Your task to perform on an android device: change timer sound Image 0: 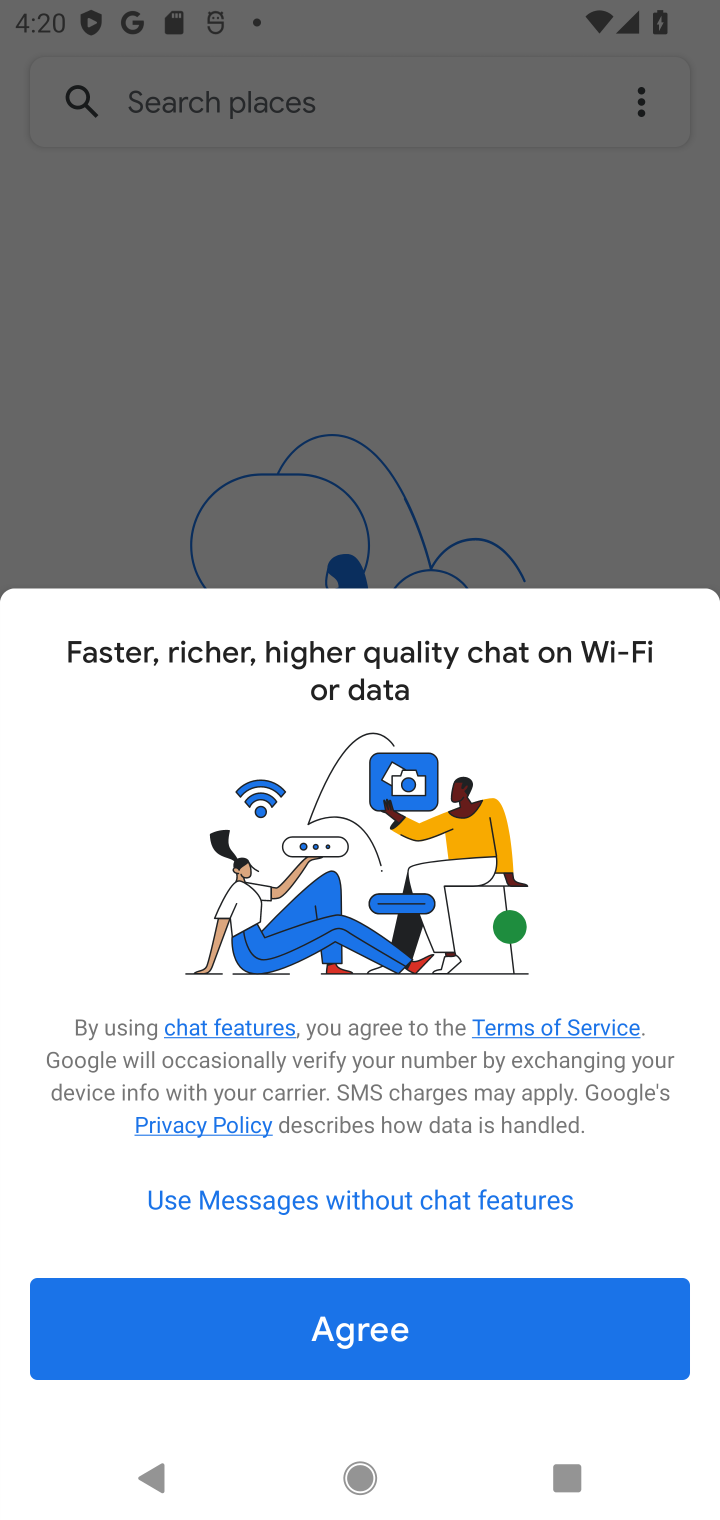
Step 0: press home button
Your task to perform on an android device: change timer sound Image 1: 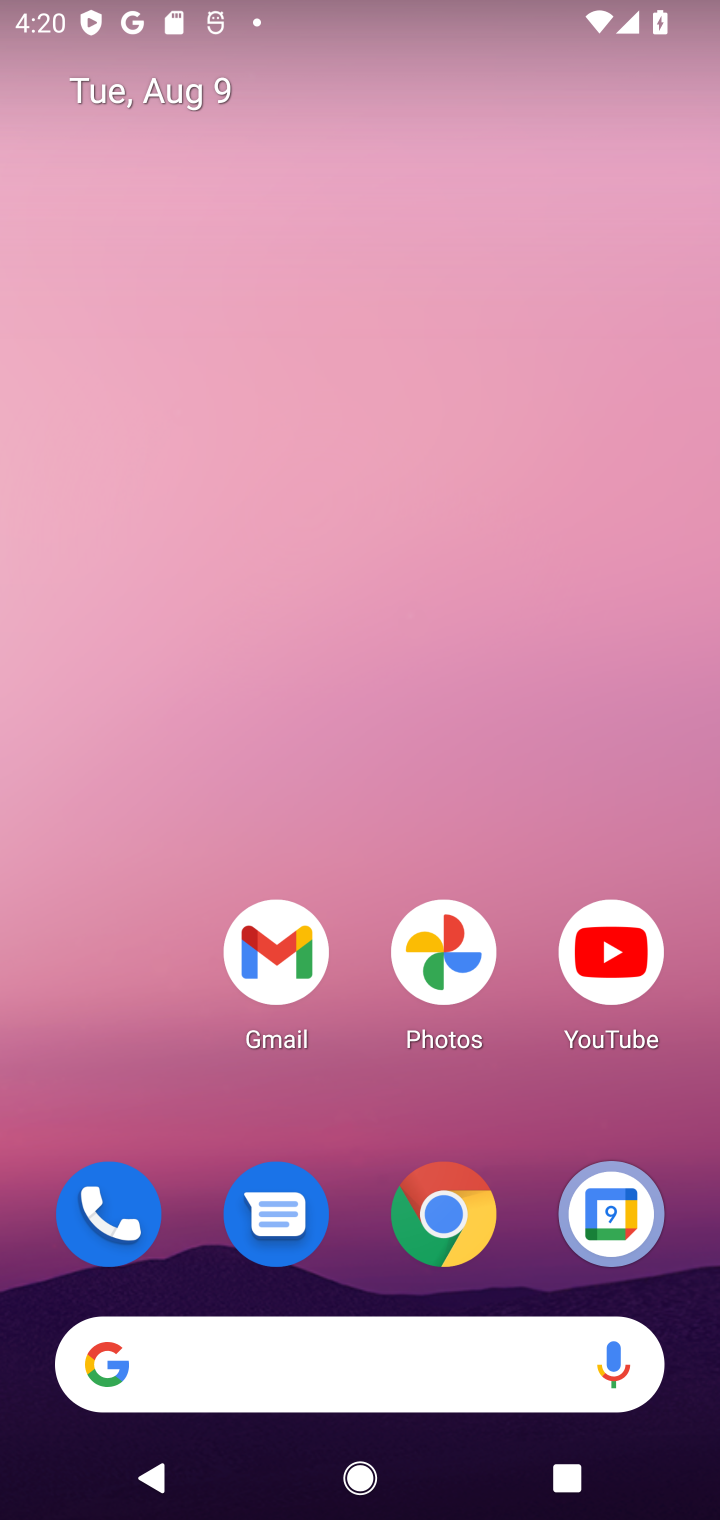
Step 1: click (265, 341)
Your task to perform on an android device: change timer sound Image 2: 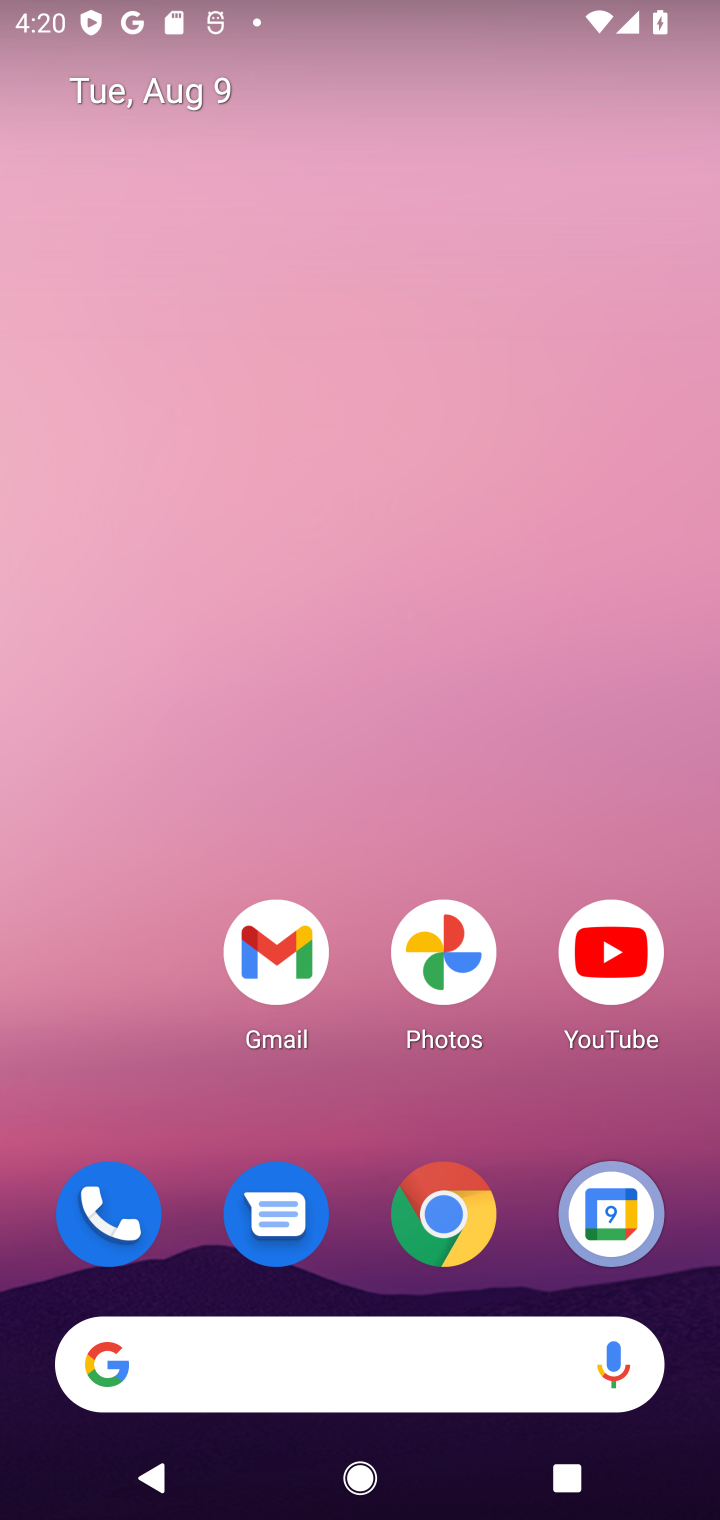
Step 2: drag from (412, 1272) to (17, 249)
Your task to perform on an android device: change timer sound Image 3: 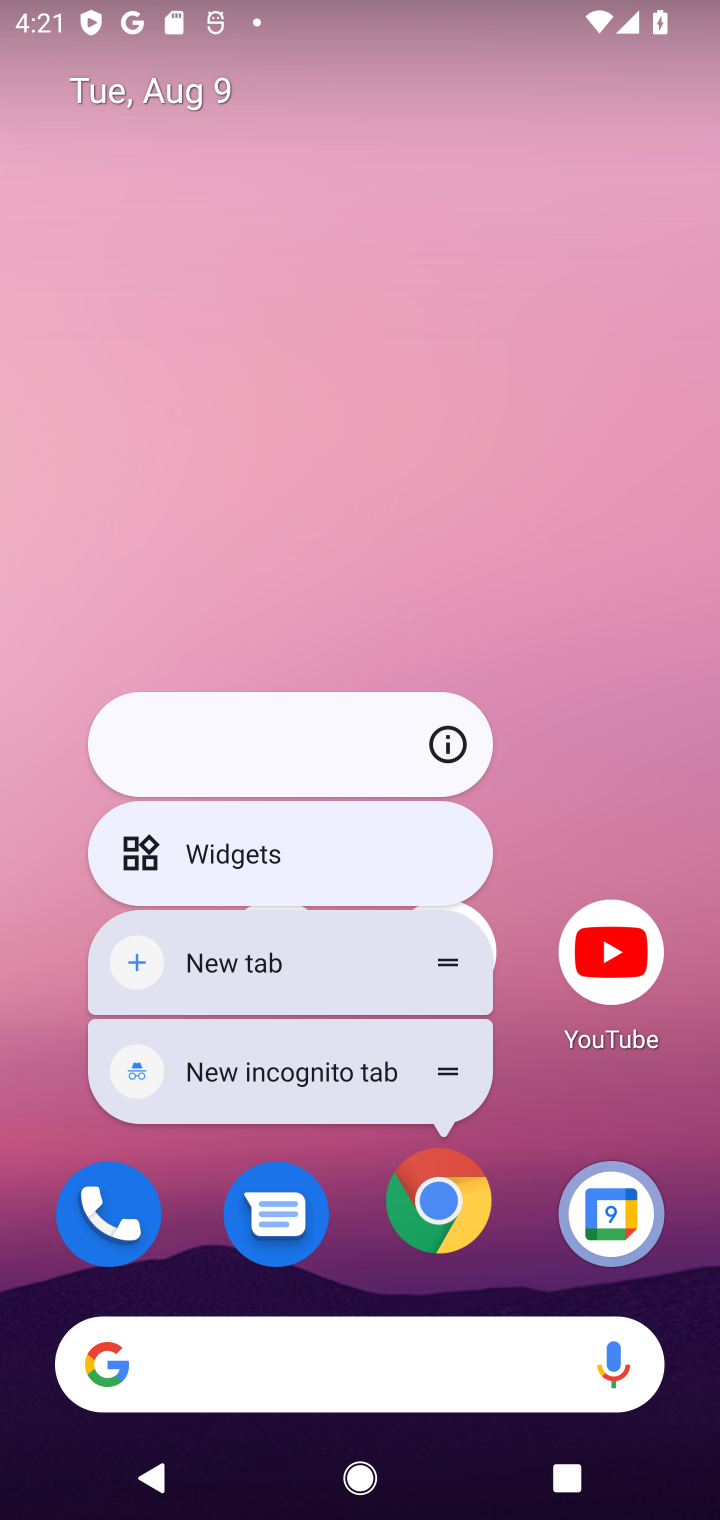
Step 3: click (441, 513)
Your task to perform on an android device: change timer sound Image 4: 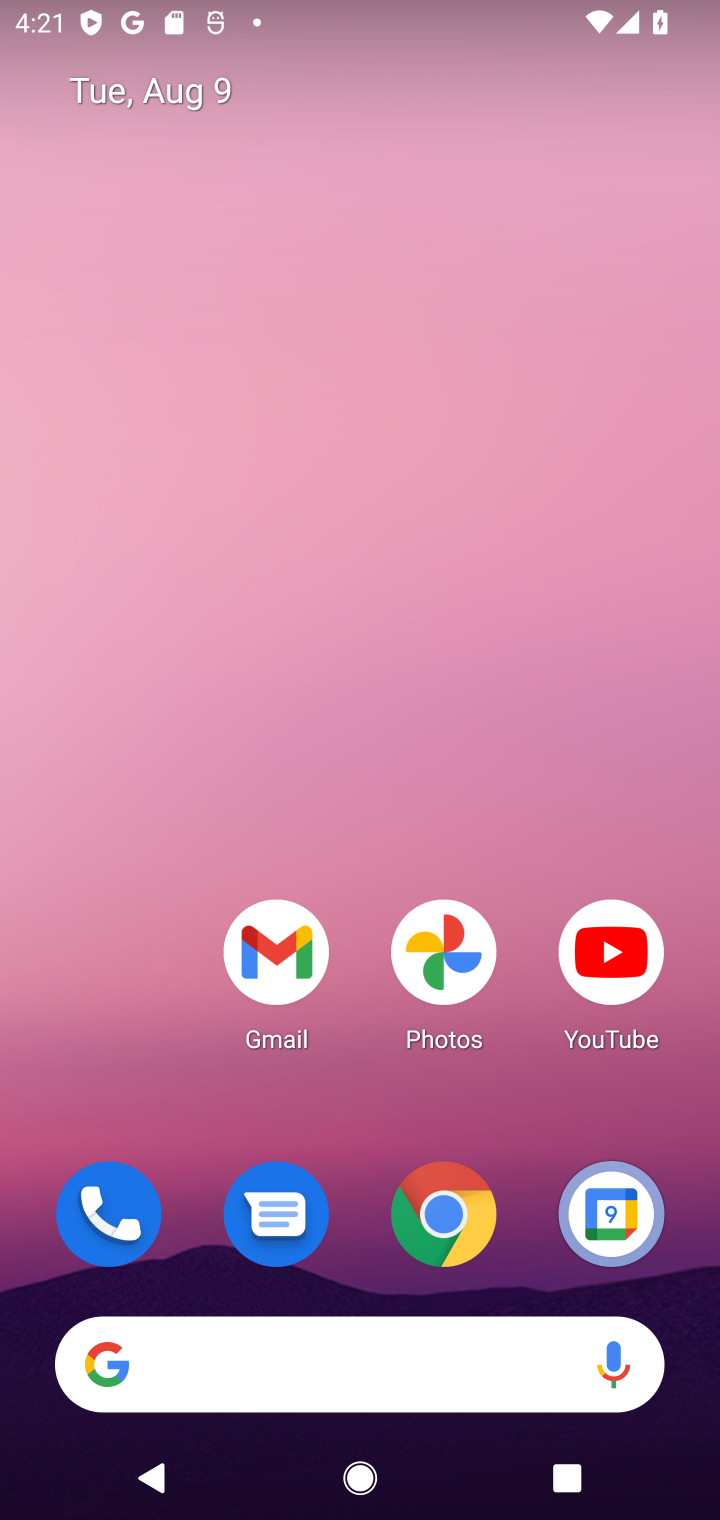
Step 4: drag from (484, 1329) to (330, 340)
Your task to perform on an android device: change timer sound Image 5: 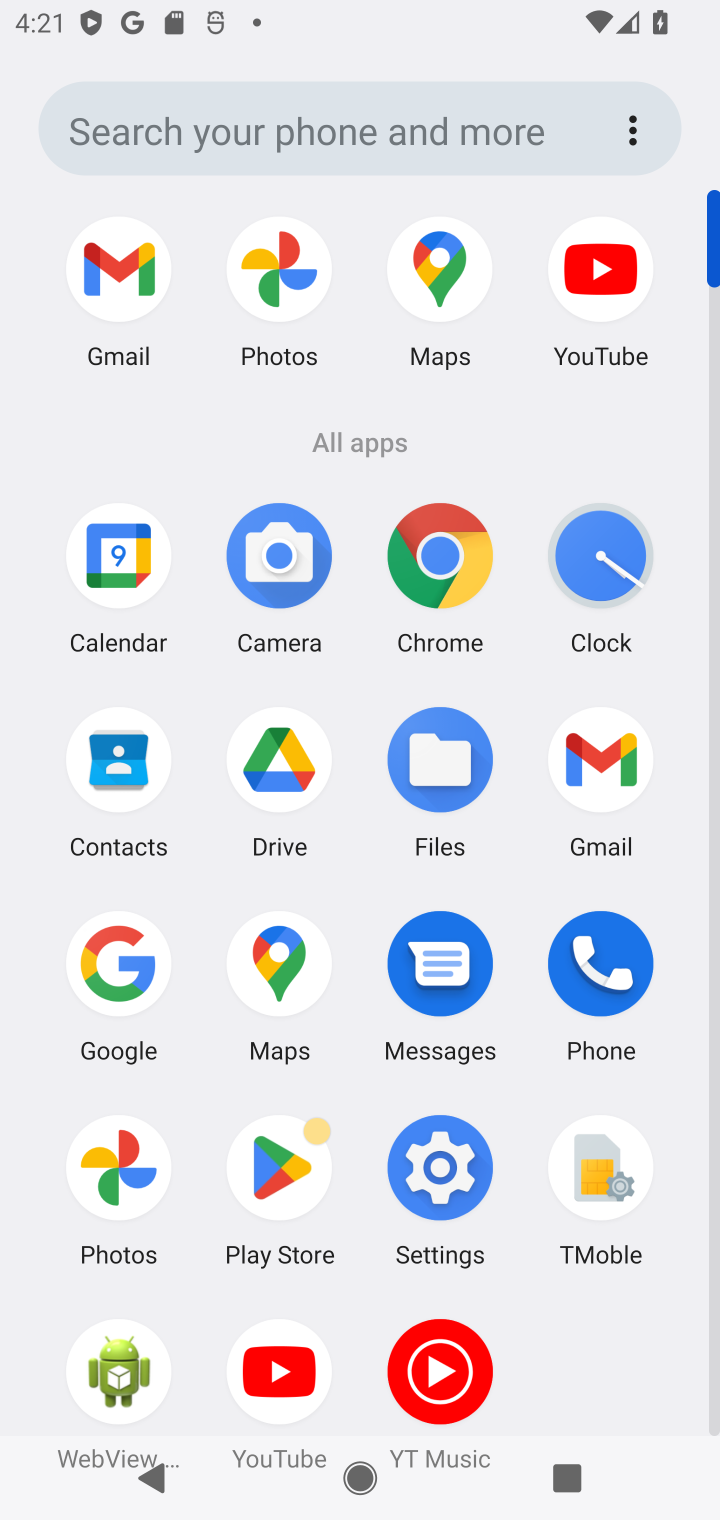
Step 5: click (589, 559)
Your task to perform on an android device: change timer sound Image 6: 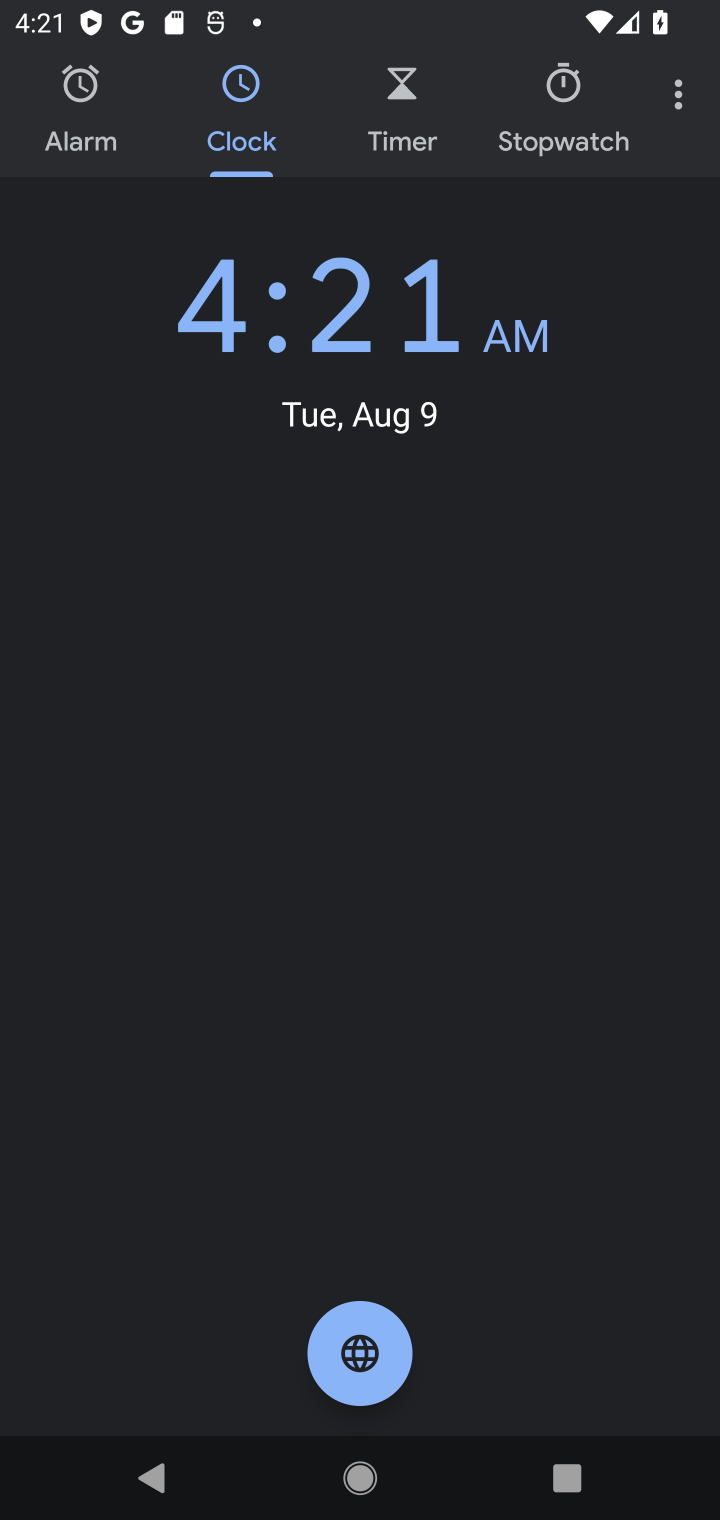
Step 6: click (674, 110)
Your task to perform on an android device: change timer sound Image 7: 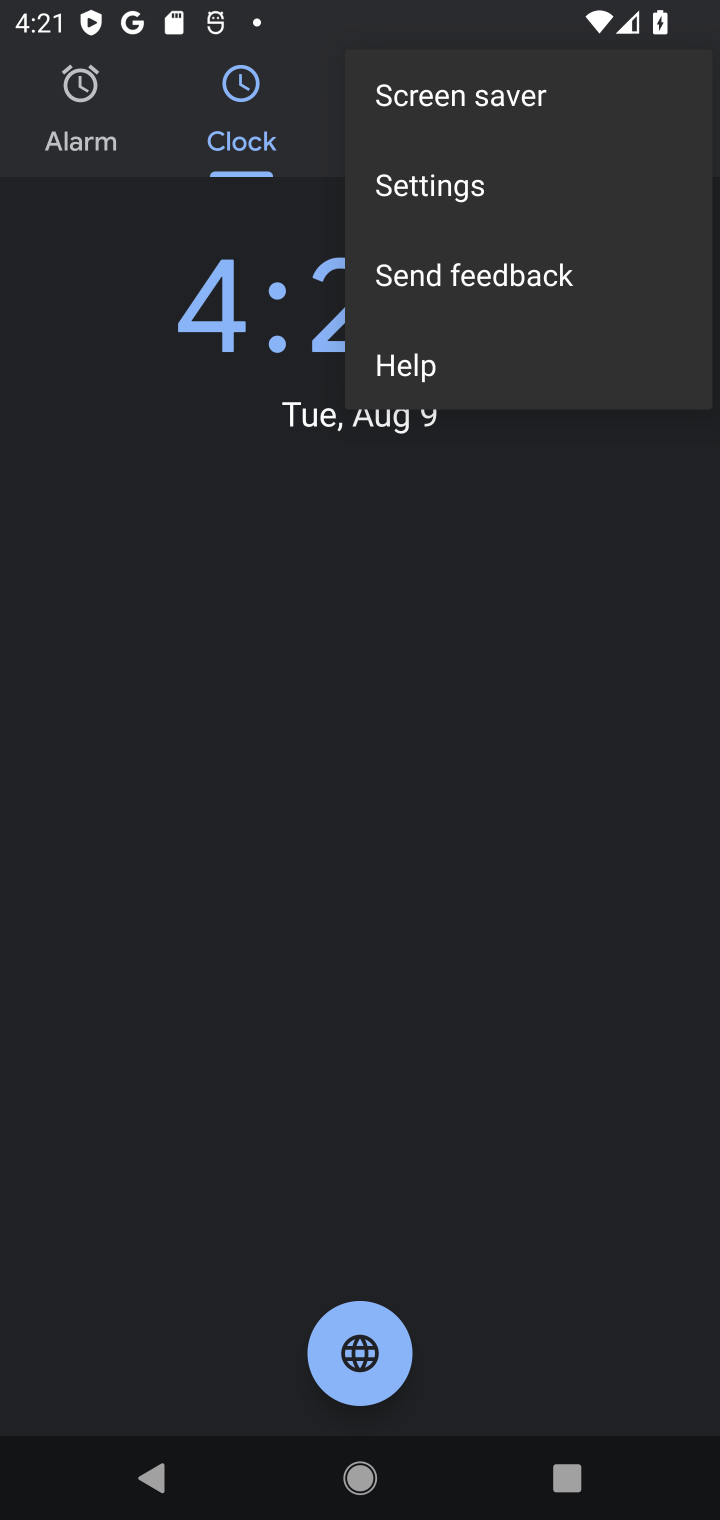
Step 7: click (448, 204)
Your task to perform on an android device: change timer sound Image 8: 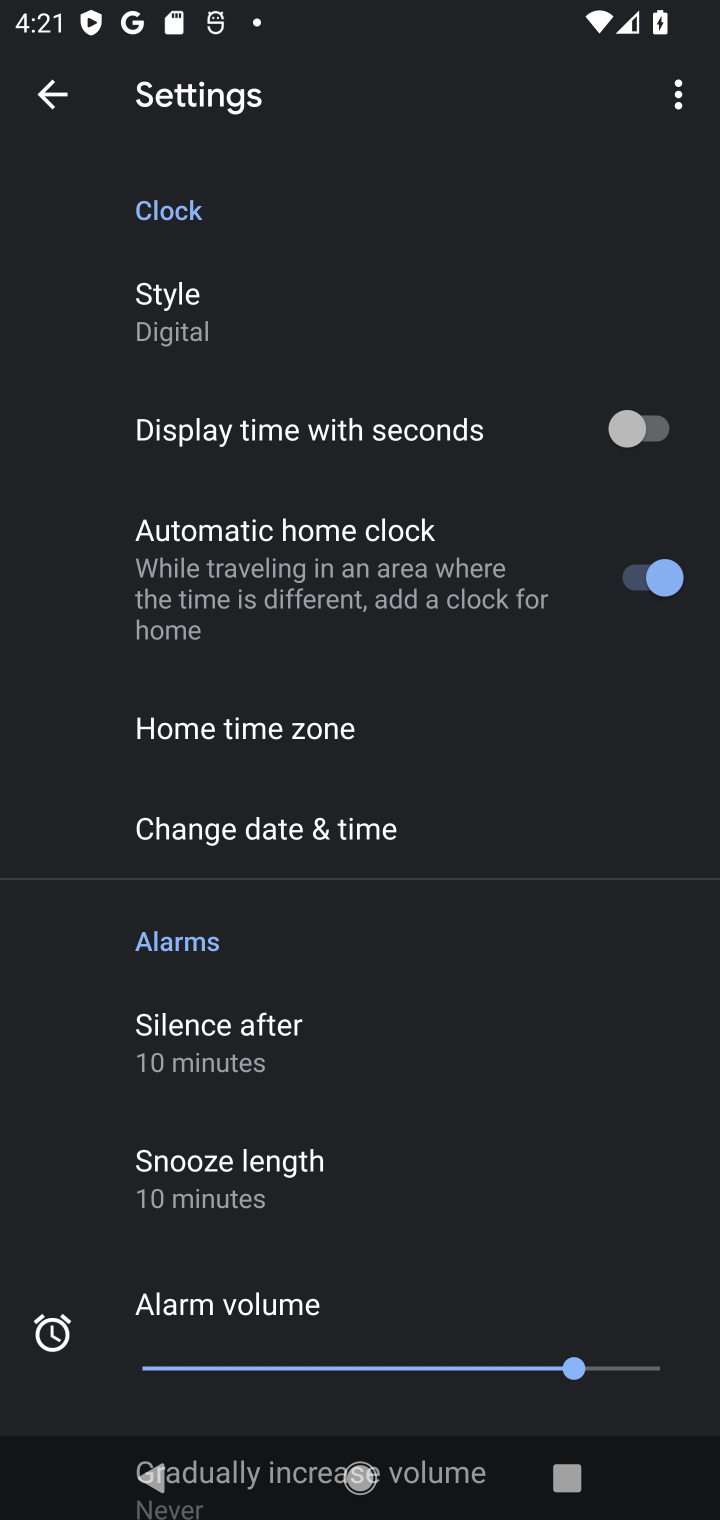
Step 8: drag from (473, 1098) to (541, 394)
Your task to perform on an android device: change timer sound Image 9: 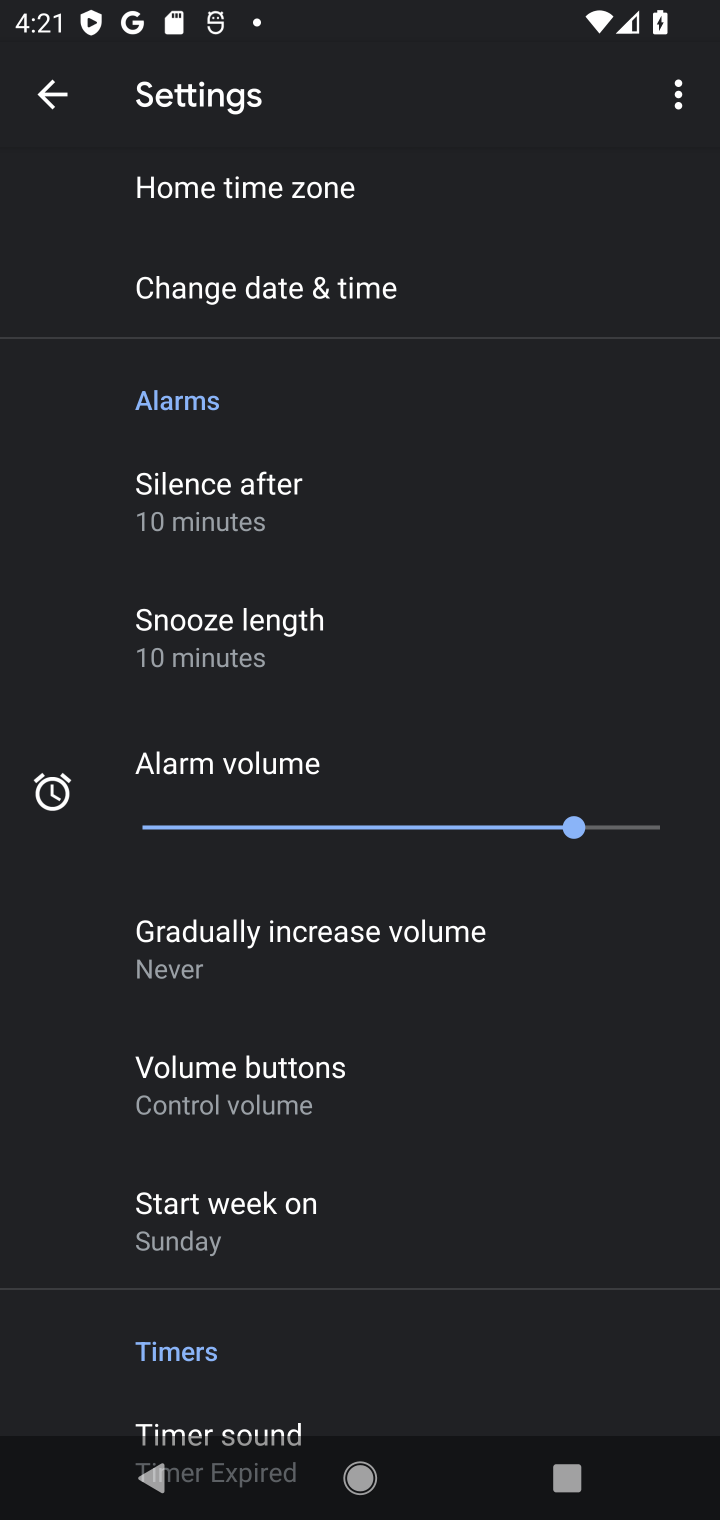
Step 9: drag from (350, 1259) to (410, 1068)
Your task to perform on an android device: change timer sound Image 10: 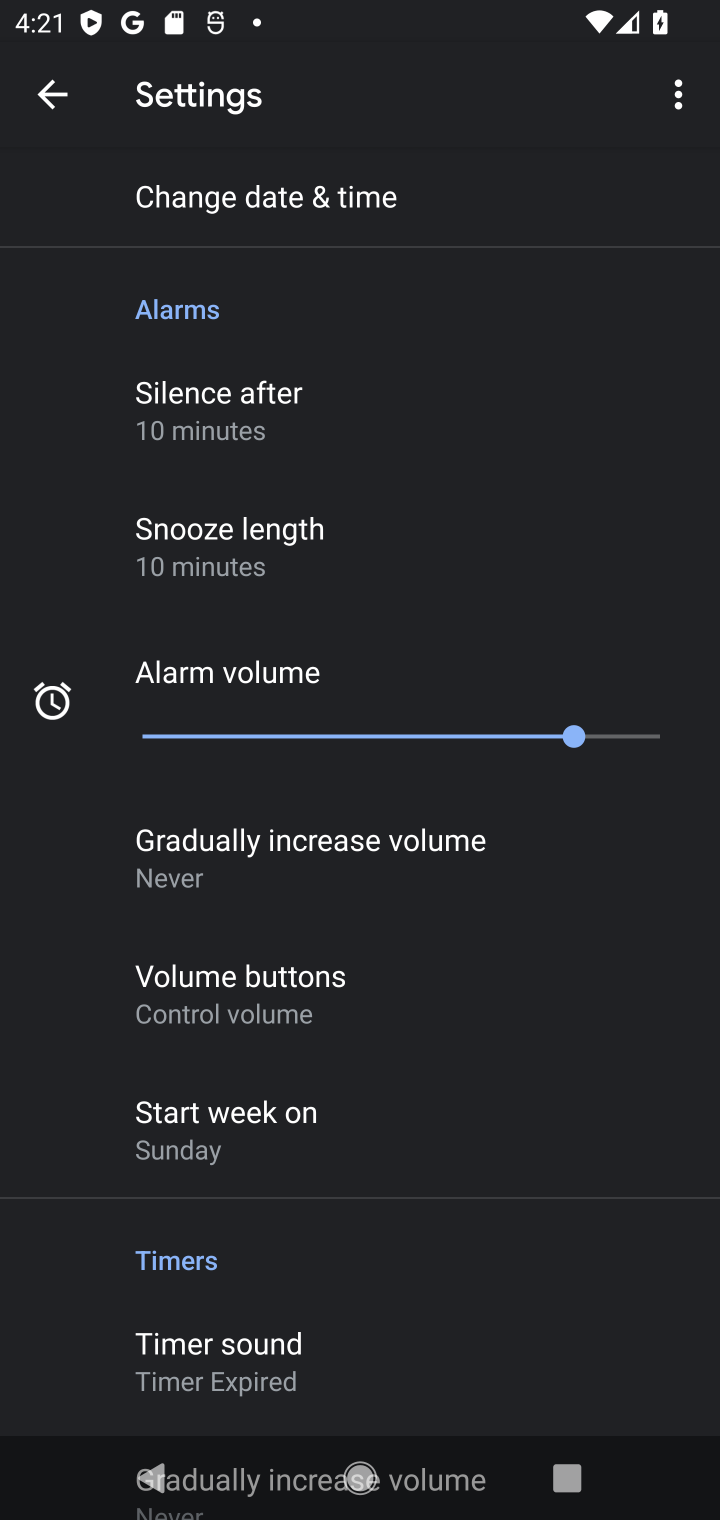
Step 10: click (315, 1353)
Your task to perform on an android device: change timer sound Image 11: 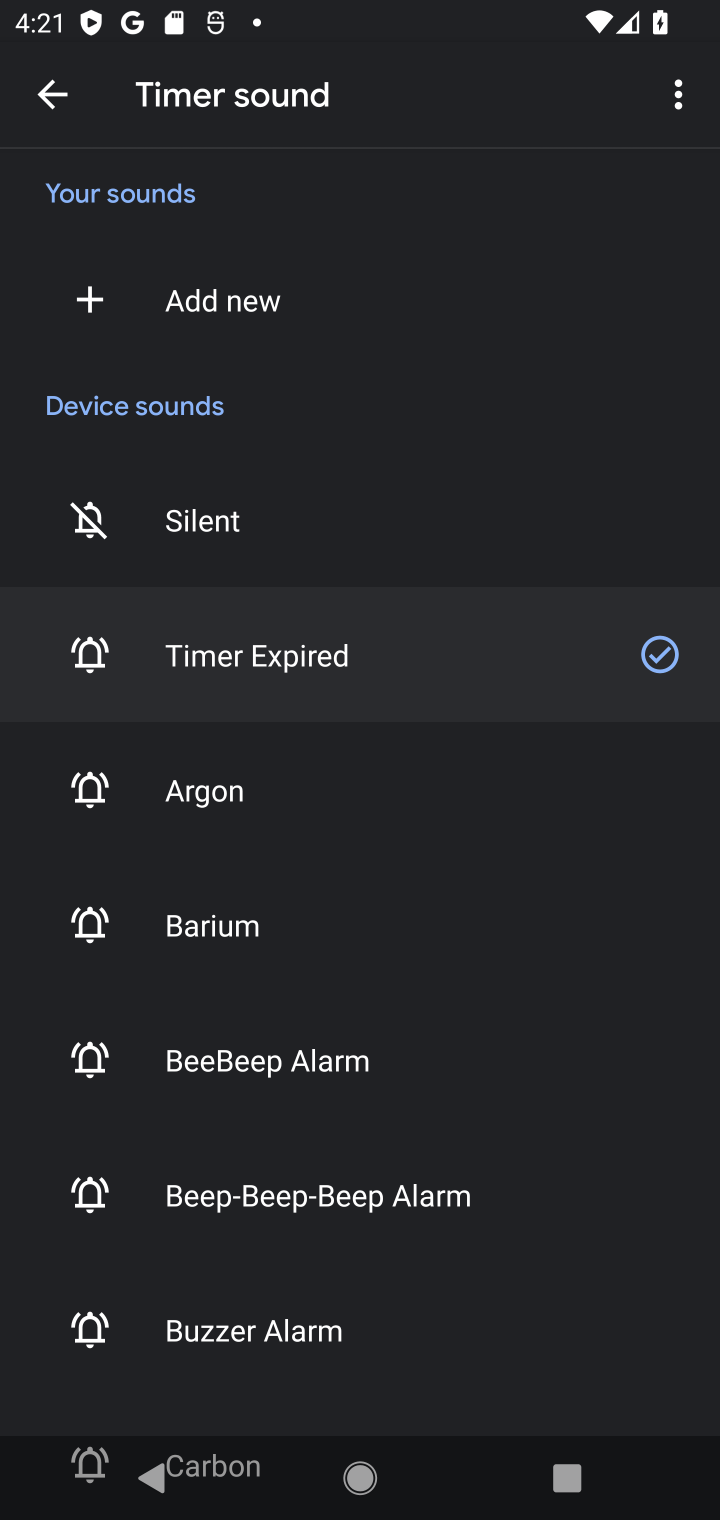
Step 11: click (284, 1308)
Your task to perform on an android device: change timer sound Image 12: 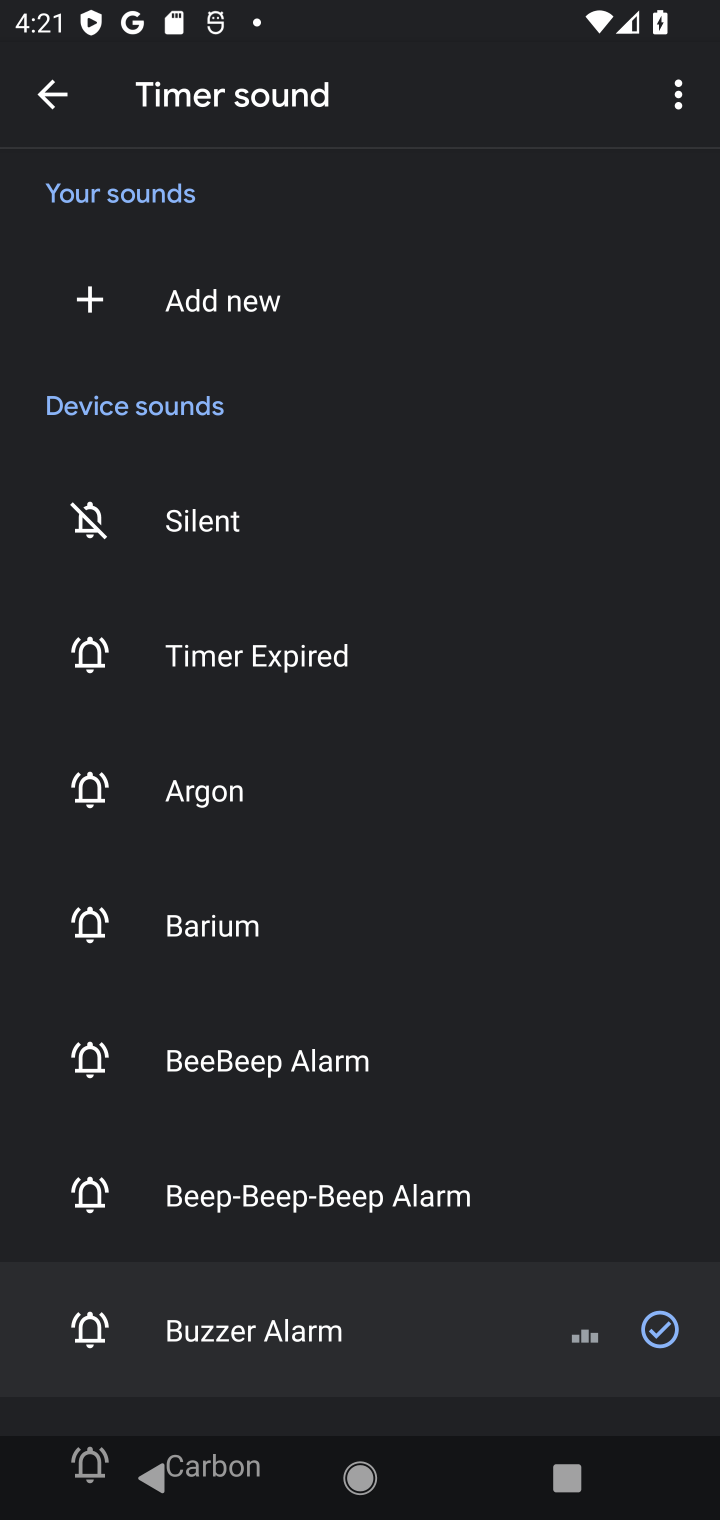
Step 12: task complete